Your task to perform on an android device: Show me productivity apps on the Play Store Image 0: 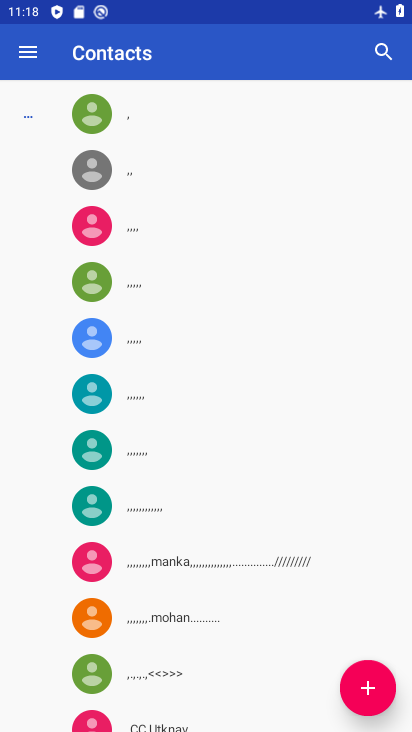
Step 0: press home button
Your task to perform on an android device: Show me productivity apps on the Play Store Image 1: 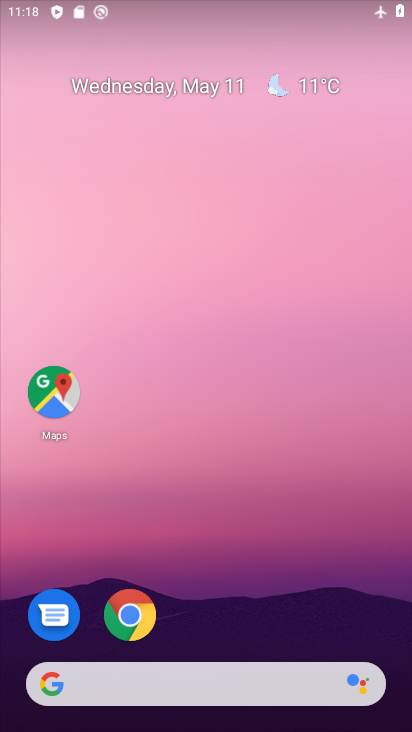
Step 1: drag from (291, 609) to (250, 168)
Your task to perform on an android device: Show me productivity apps on the Play Store Image 2: 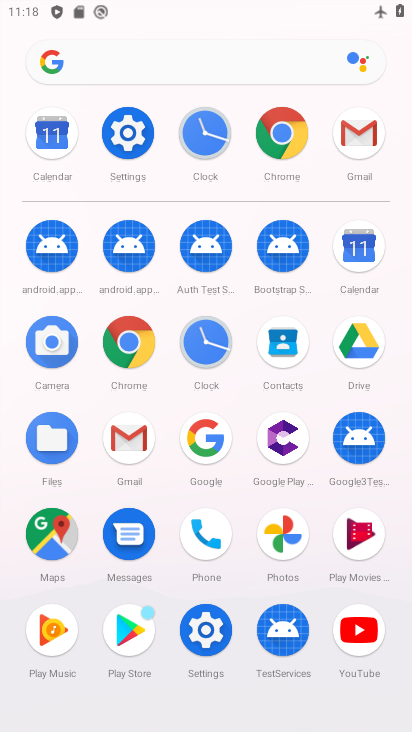
Step 2: click (146, 632)
Your task to perform on an android device: Show me productivity apps on the Play Store Image 3: 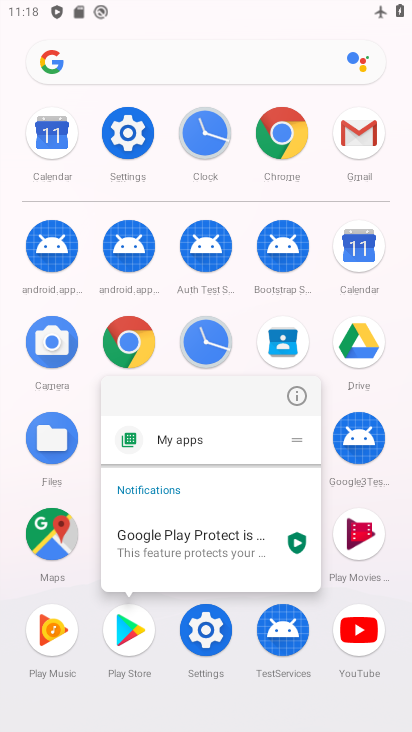
Step 3: click (117, 641)
Your task to perform on an android device: Show me productivity apps on the Play Store Image 4: 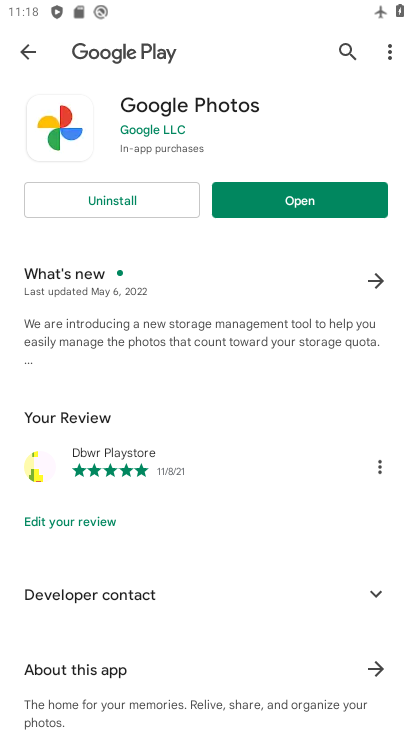
Step 4: click (23, 47)
Your task to perform on an android device: Show me productivity apps on the Play Store Image 5: 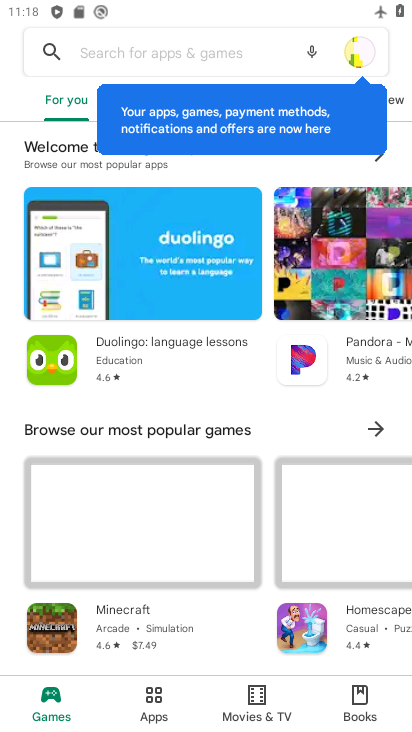
Step 5: click (154, 692)
Your task to perform on an android device: Show me productivity apps on the Play Store Image 6: 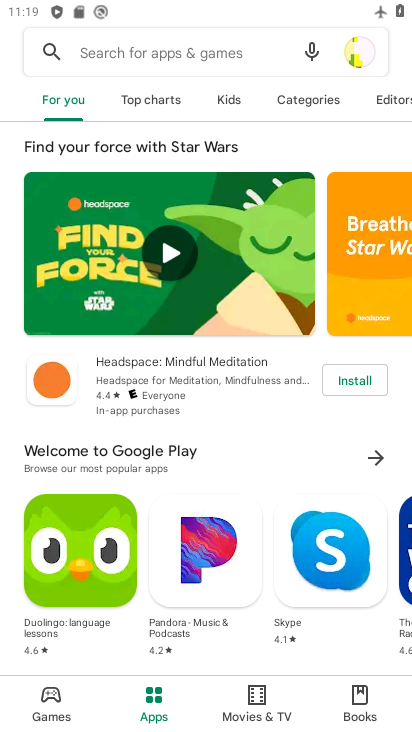
Step 6: task complete